Your task to perform on an android device: Go to wifi settings Image 0: 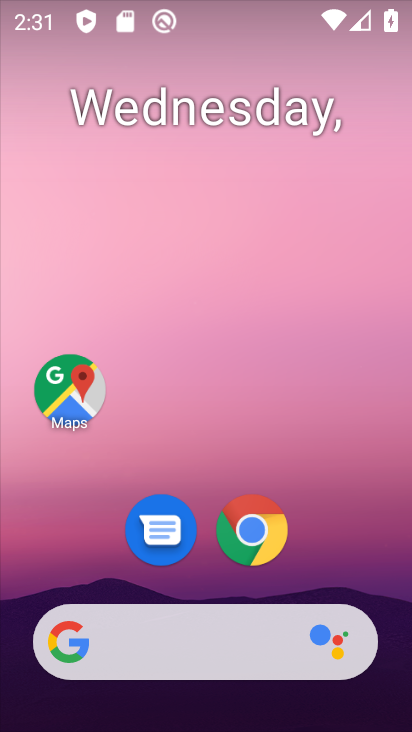
Step 0: drag from (201, 631) to (182, 62)
Your task to perform on an android device: Go to wifi settings Image 1: 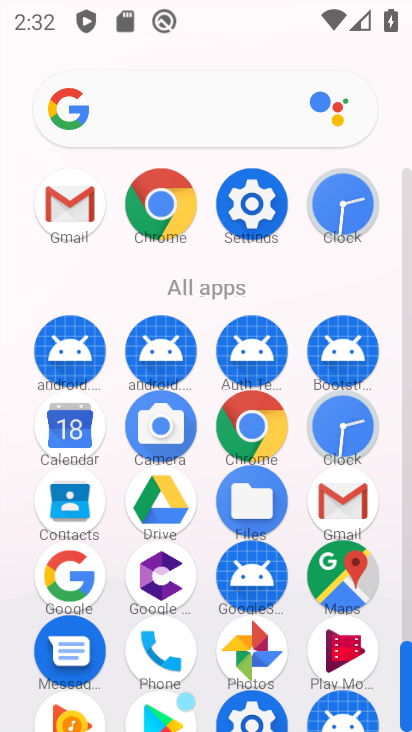
Step 1: click (257, 202)
Your task to perform on an android device: Go to wifi settings Image 2: 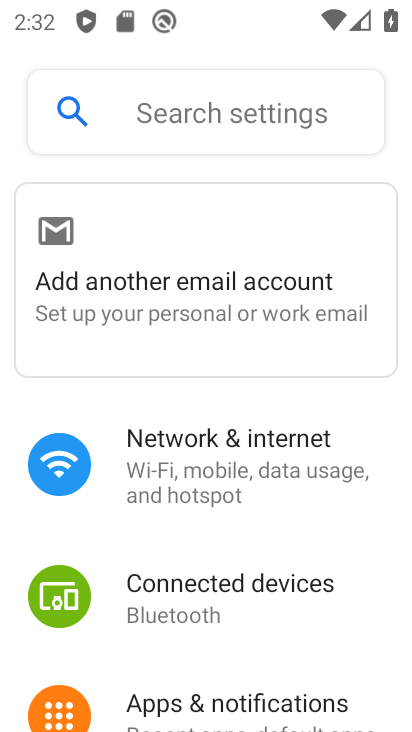
Step 2: click (226, 457)
Your task to perform on an android device: Go to wifi settings Image 3: 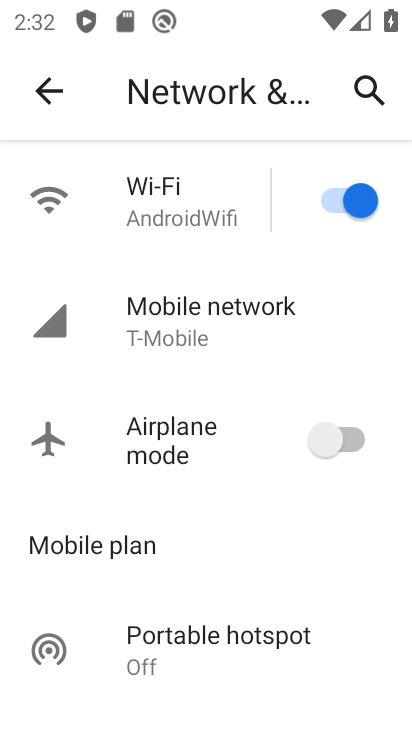
Step 3: click (128, 214)
Your task to perform on an android device: Go to wifi settings Image 4: 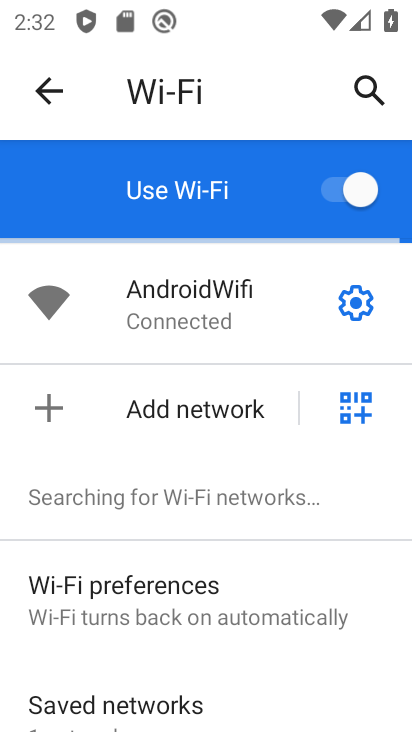
Step 4: task complete